Your task to perform on an android device: Open Amazon Image 0: 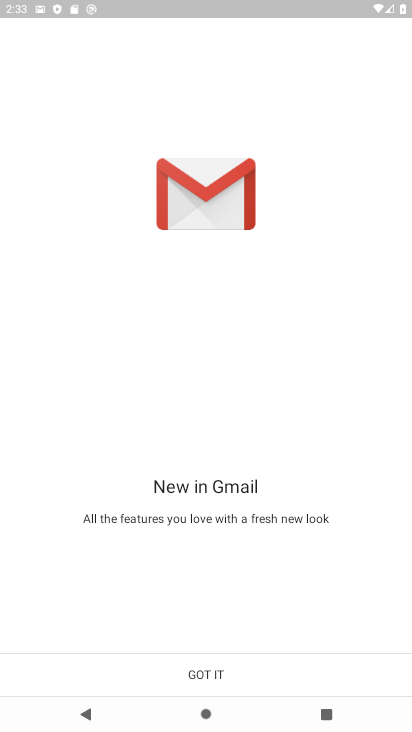
Step 0: drag from (286, 611) to (225, 195)
Your task to perform on an android device: Open Amazon Image 1: 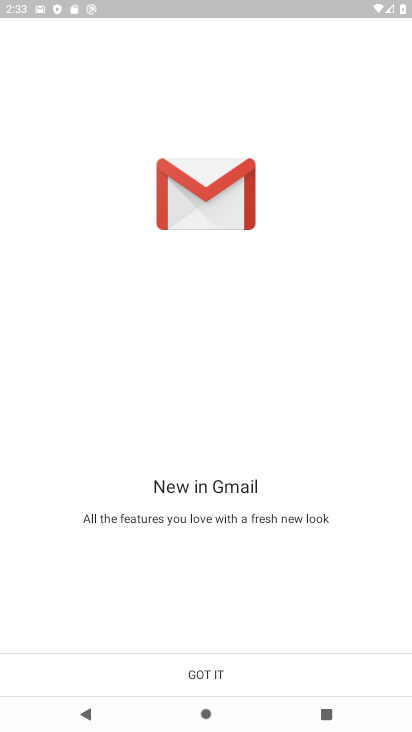
Step 1: press home button
Your task to perform on an android device: Open Amazon Image 2: 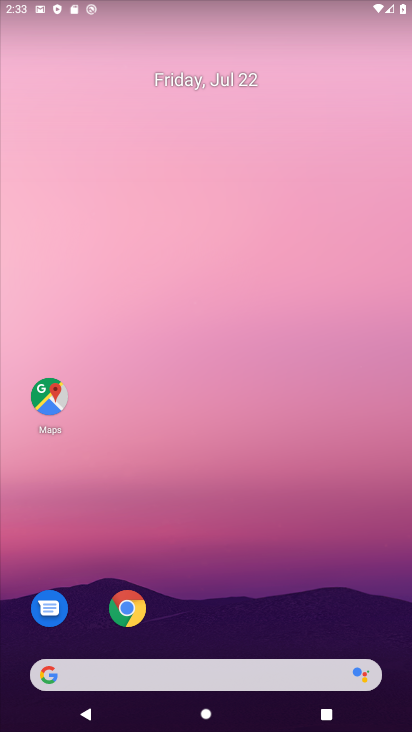
Step 2: drag from (247, 616) to (215, 200)
Your task to perform on an android device: Open Amazon Image 3: 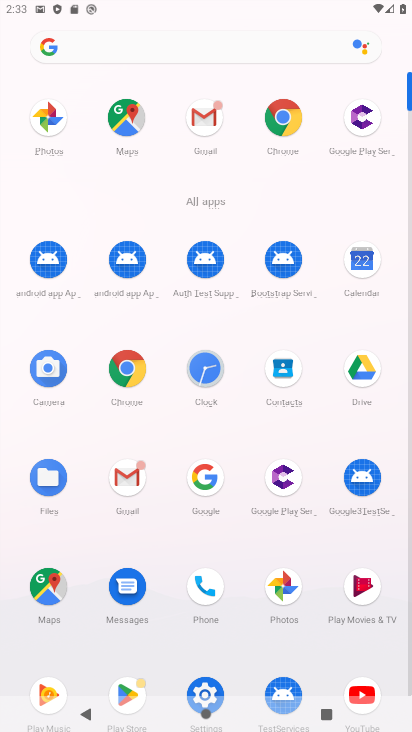
Step 3: click (286, 125)
Your task to perform on an android device: Open Amazon Image 4: 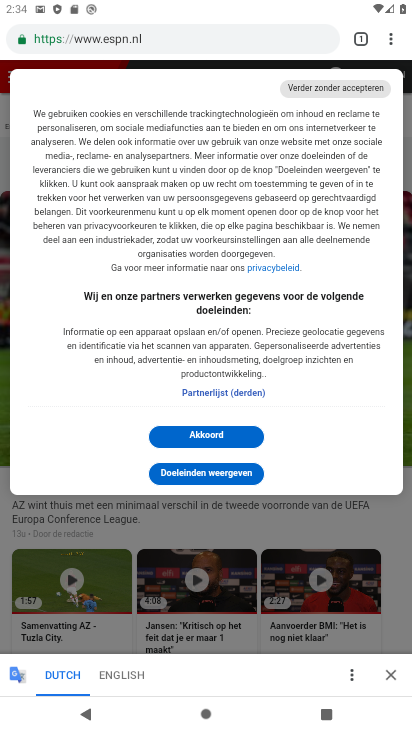
Step 4: click (355, 38)
Your task to perform on an android device: Open Amazon Image 5: 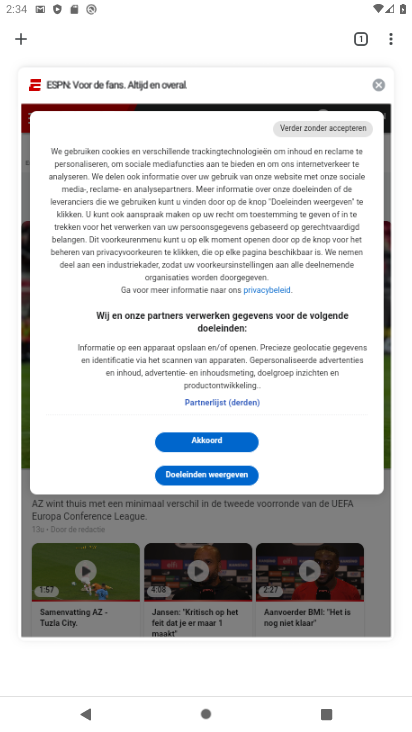
Step 5: click (17, 40)
Your task to perform on an android device: Open Amazon Image 6: 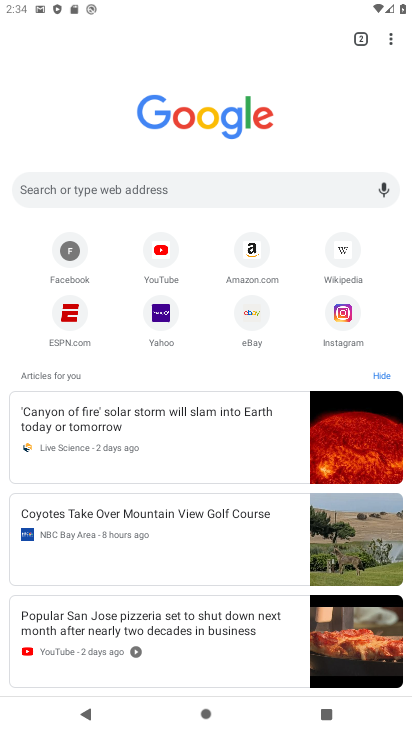
Step 6: click (261, 265)
Your task to perform on an android device: Open Amazon Image 7: 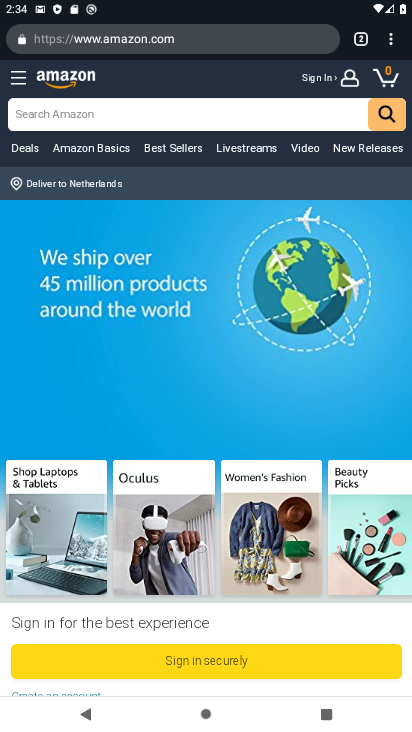
Step 7: task complete